Your task to perform on an android device: Open Google Image 0: 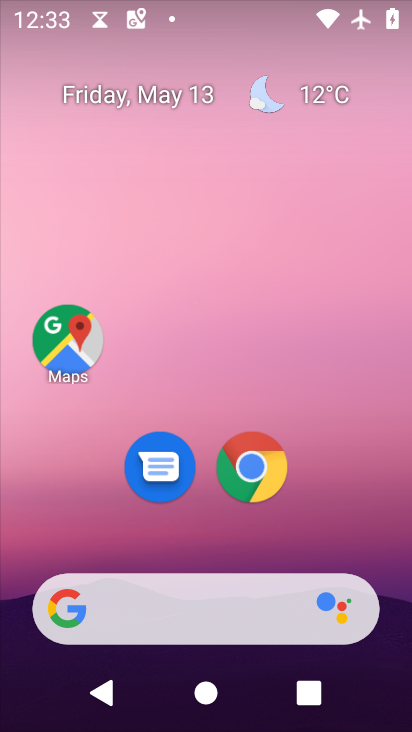
Step 0: click (253, 50)
Your task to perform on an android device: Open Google Image 1: 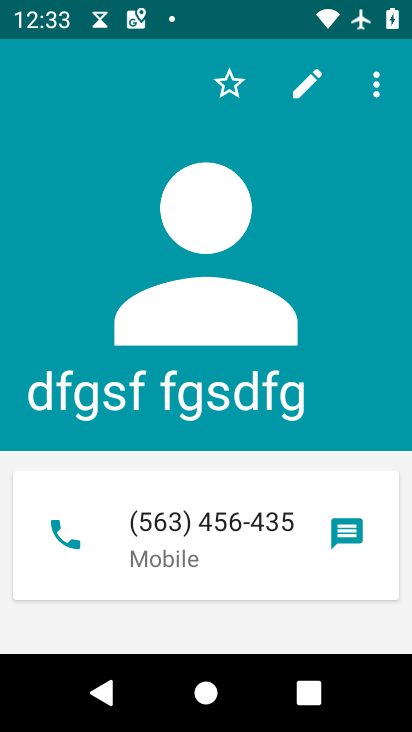
Step 1: press home button
Your task to perform on an android device: Open Google Image 2: 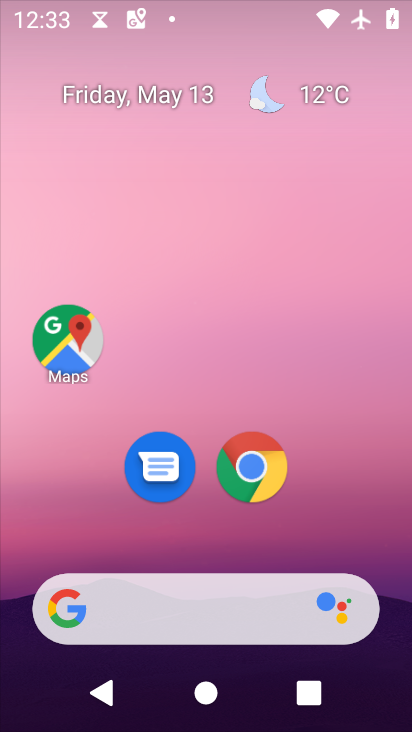
Step 2: drag from (290, 539) to (240, 46)
Your task to perform on an android device: Open Google Image 3: 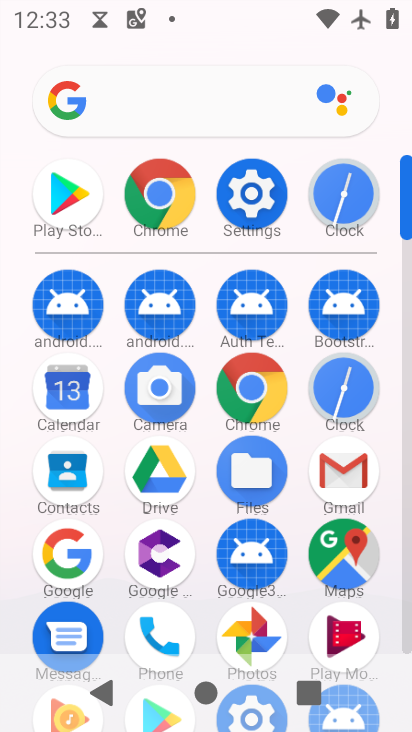
Step 3: click (88, 549)
Your task to perform on an android device: Open Google Image 4: 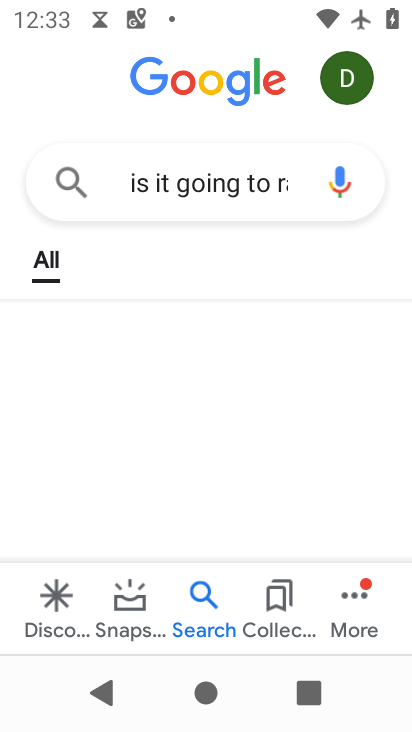
Step 4: task complete